Your task to perform on an android device: open app "TextNow: Call + Text Unlimited" (install if not already installed) and enter user name: "stoke@yahoo.com" and password: "prompted" Image 0: 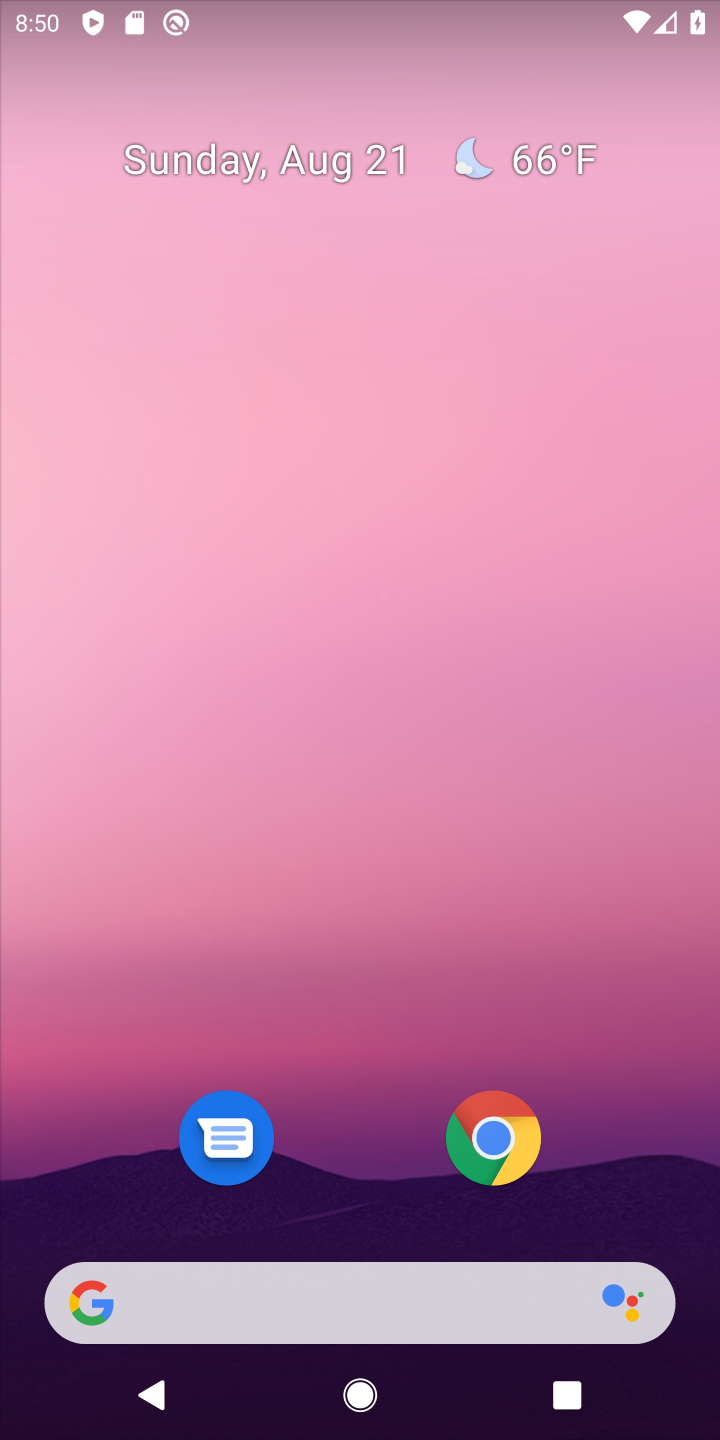
Step 0: press home button
Your task to perform on an android device: open app "TextNow: Call + Text Unlimited" (install if not already installed) and enter user name: "stoke@yahoo.com" and password: "prompted" Image 1: 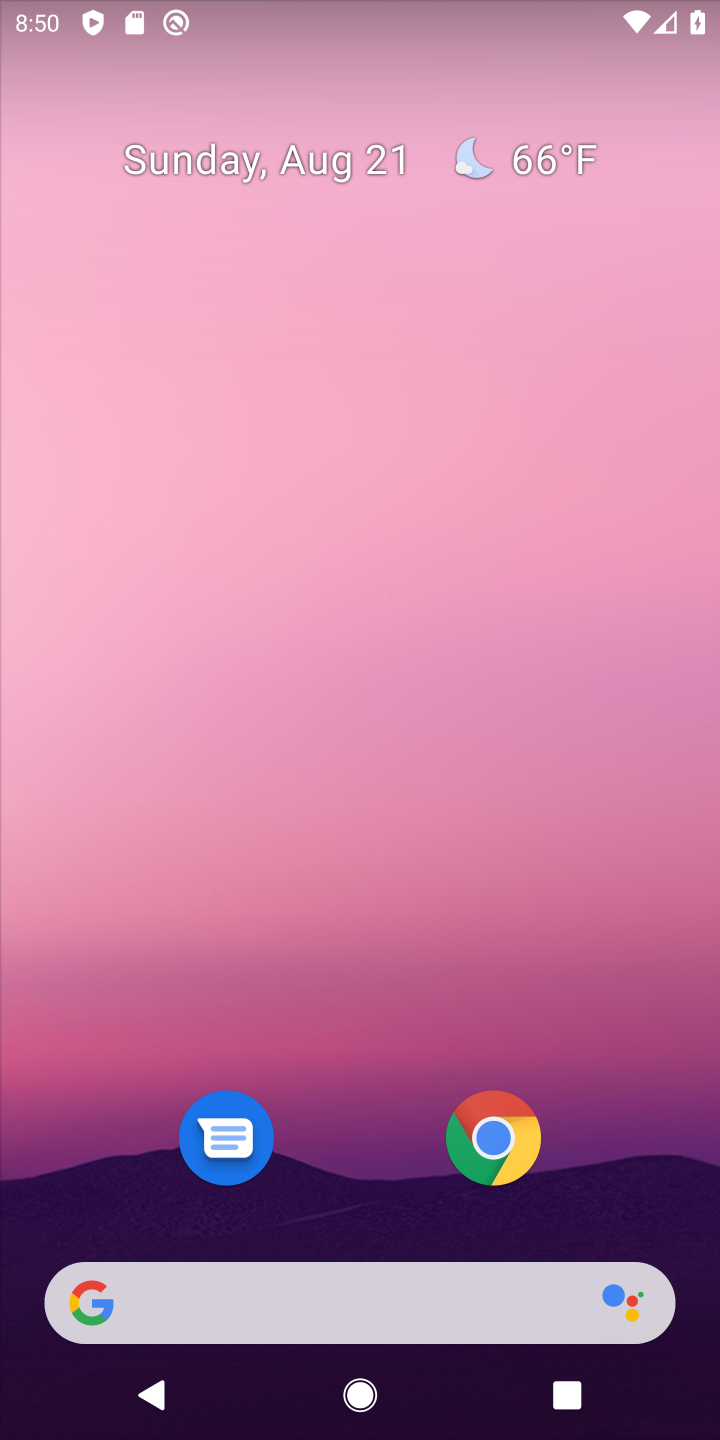
Step 1: drag from (633, 1191) to (631, 339)
Your task to perform on an android device: open app "TextNow: Call + Text Unlimited" (install if not already installed) and enter user name: "stoke@yahoo.com" and password: "prompted" Image 2: 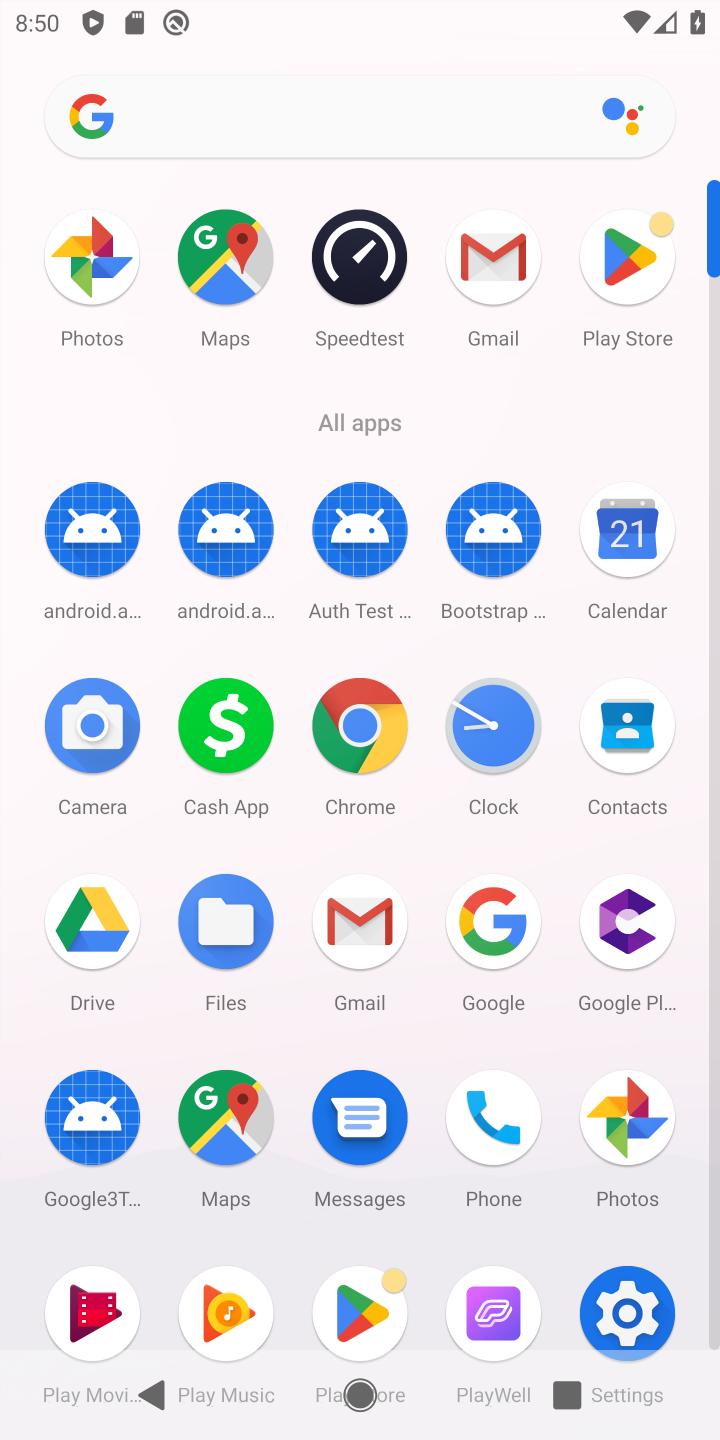
Step 2: click (625, 257)
Your task to perform on an android device: open app "TextNow: Call + Text Unlimited" (install if not already installed) and enter user name: "stoke@yahoo.com" and password: "prompted" Image 3: 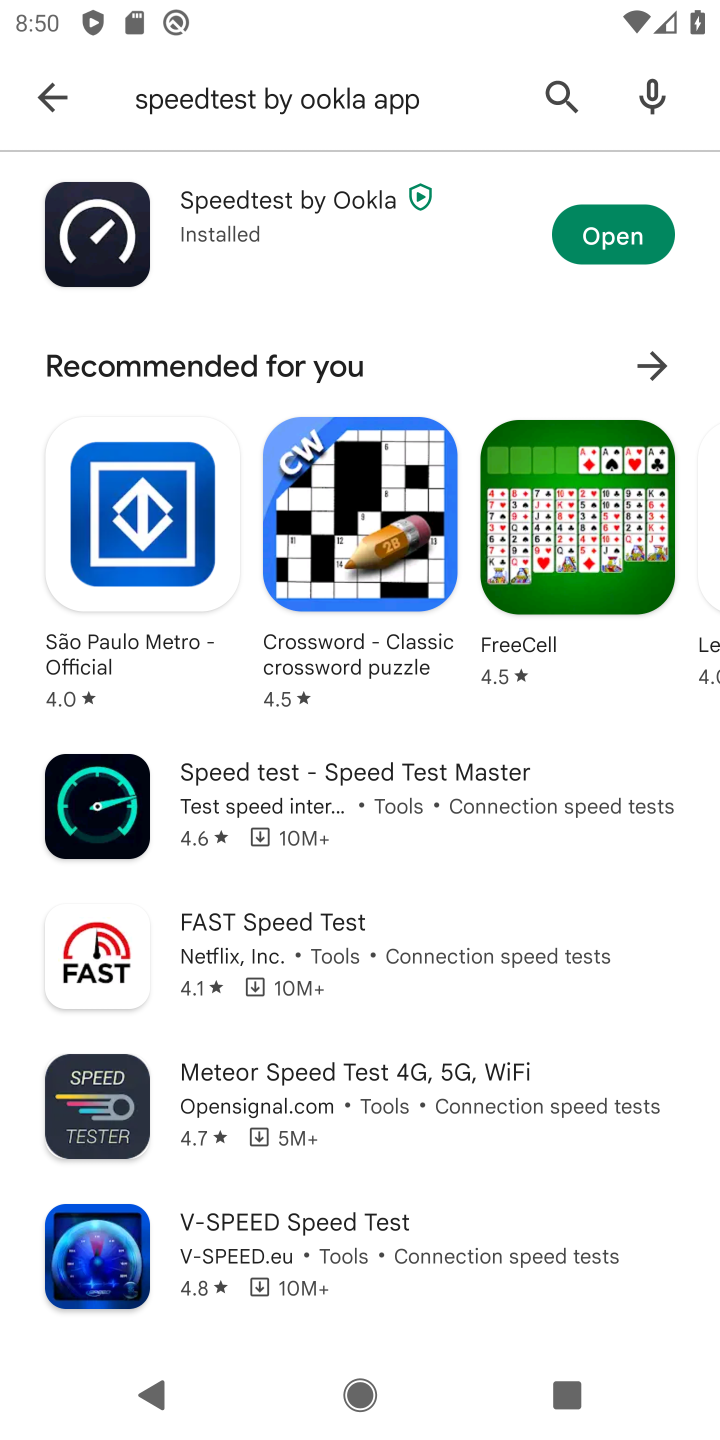
Step 3: press back button
Your task to perform on an android device: open app "TextNow: Call + Text Unlimited" (install if not already installed) and enter user name: "stoke@yahoo.com" and password: "prompted" Image 4: 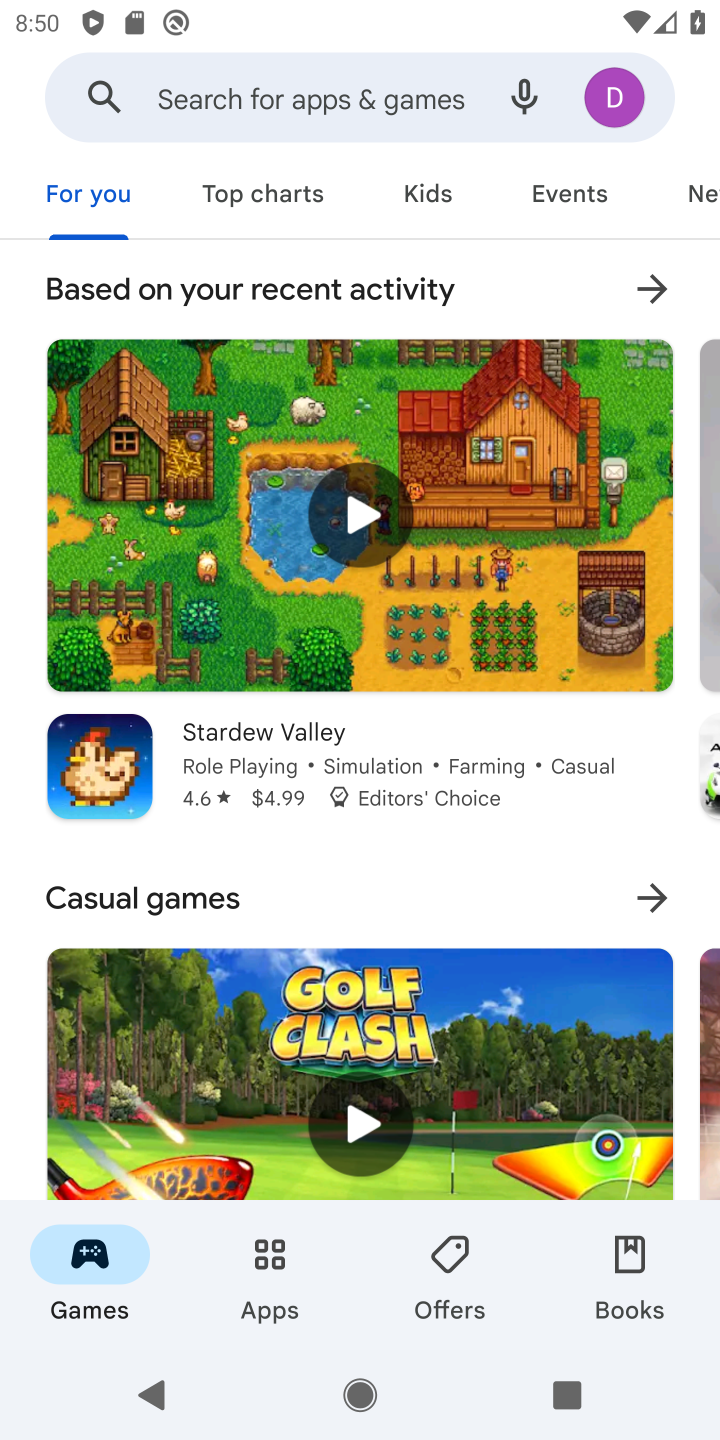
Step 4: click (282, 90)
Your task to perform on an android device: open app "TextNow: Call + Text Unlimited" (install if not already installed) and enter user name: "stoke@yahoo.com" and password: "prompted" Image 5: 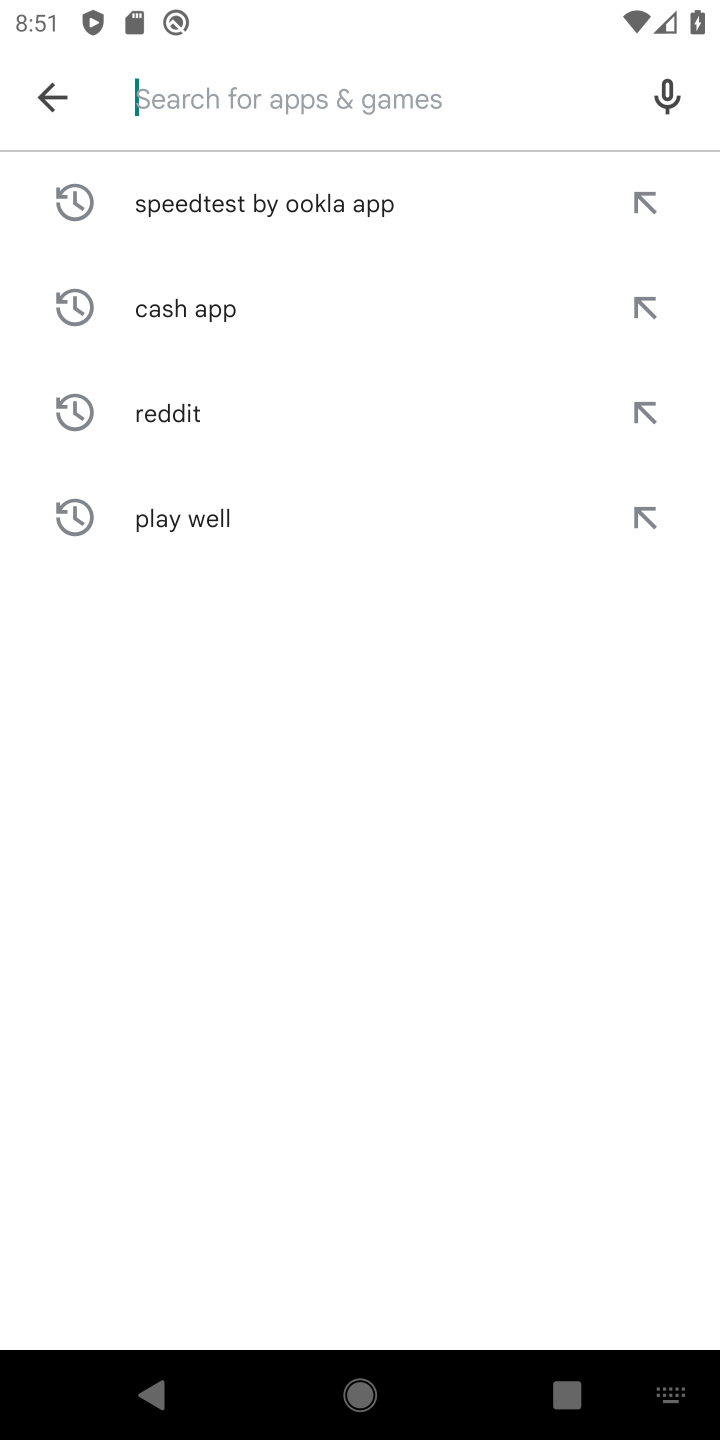
Step 5: press enter
Your task to perform on an android device: open app "TextNow: Call + Text Unlimited" (install if not already installed) and enter user name: "stoke@yahoo.com" and password: "prompted" Image 6: 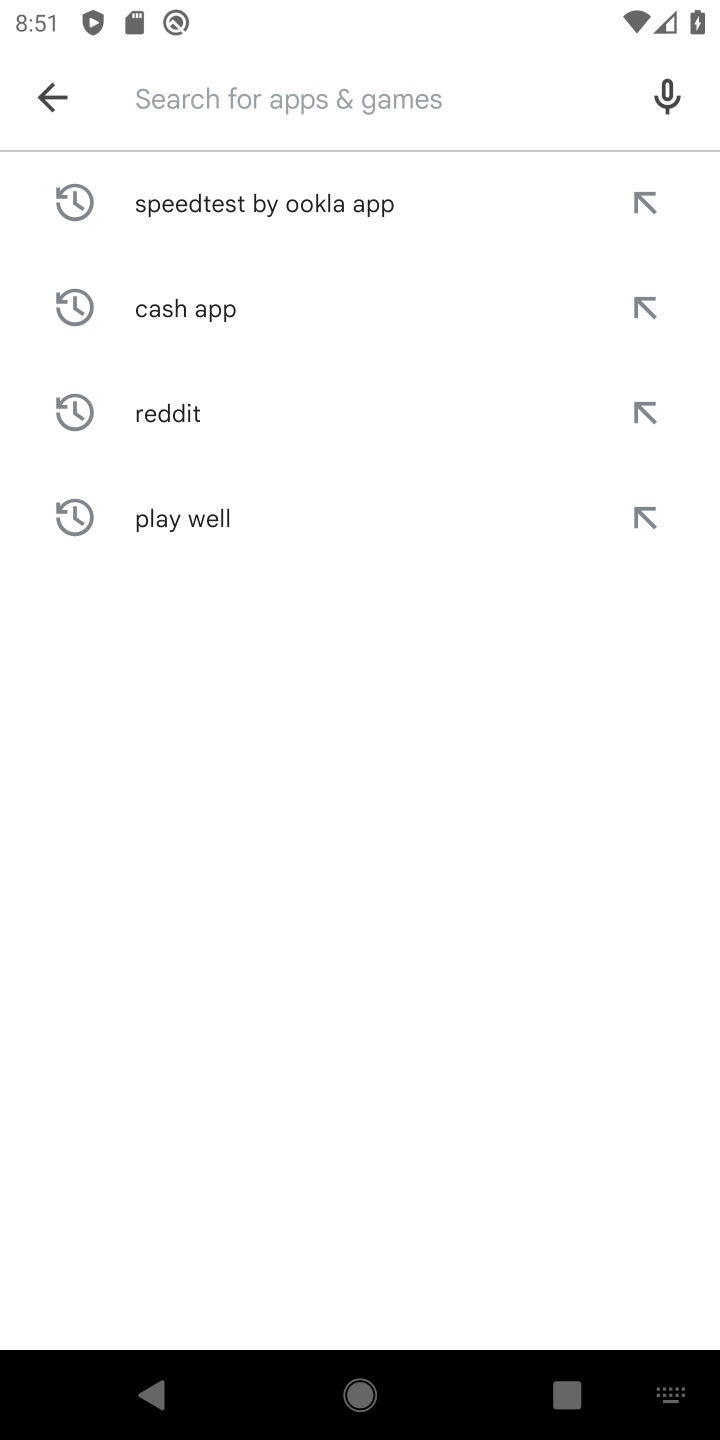
Step 6: type "TextNow: Call + Text Unlimited"
Your task to perform on an android device: open app "TextNow: Call + Text Unlimited" (install if not already installed) and enter user name: "stoke@yahoo.com" and password: "prompted" Image 7: 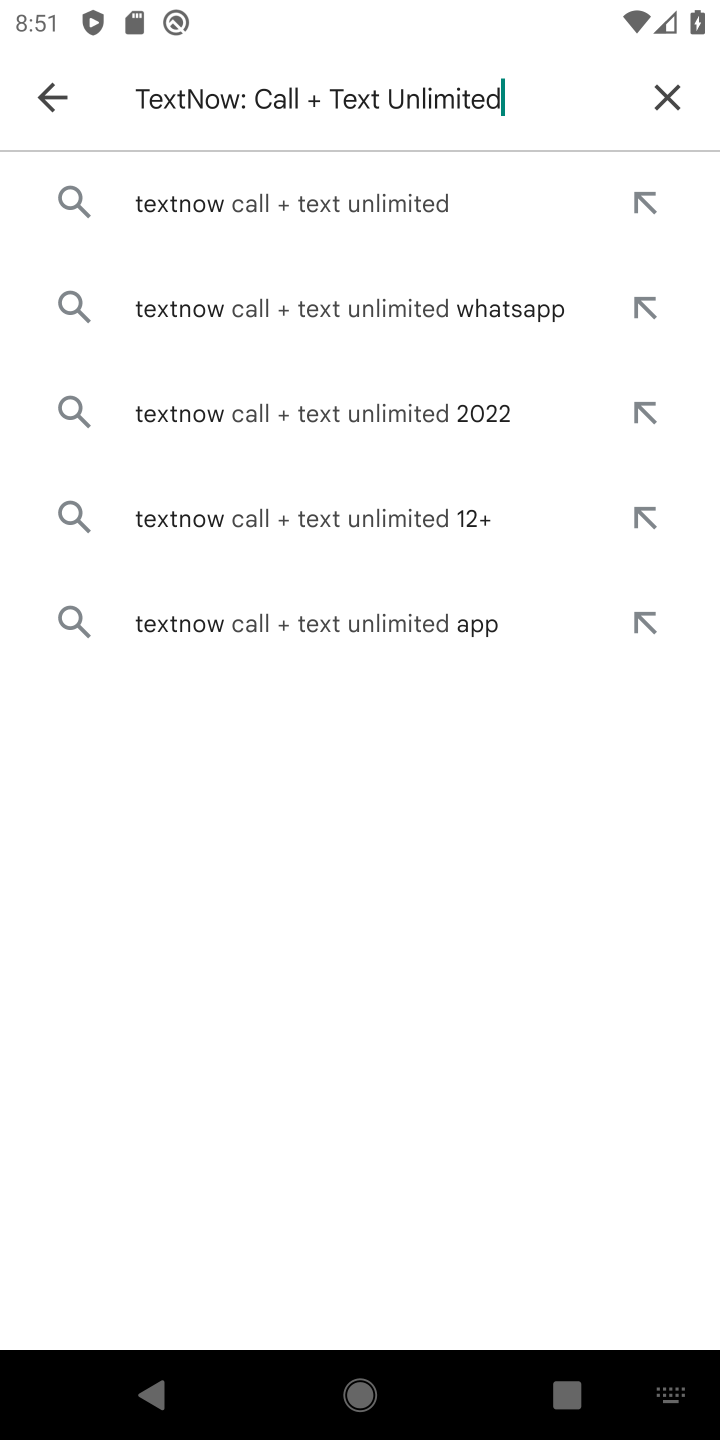
Step 7: click (436, 207)
Your task to perform on an android device: open app "TextNow: Call + Text Unlimited" (install if not already installed) and enter user name: "stoke@yahoo.com" and password: "prompted" Image 8: 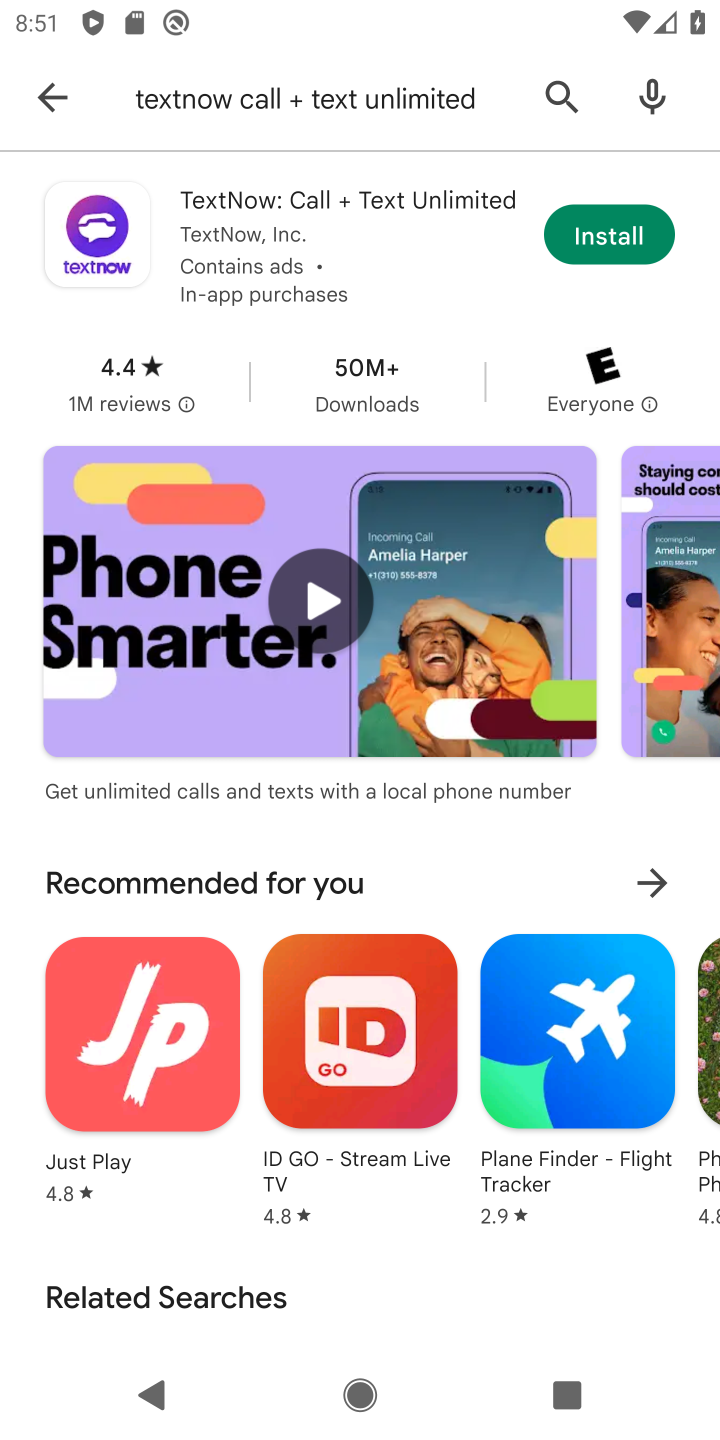
Step 8: click (607, 243)
Your task to perform on an android device: open app "TextNow: Call + Text Unlimited" (install if not already installed) and enter user name: "stoke@yahoo.com" and password: "prompted" Image 9: 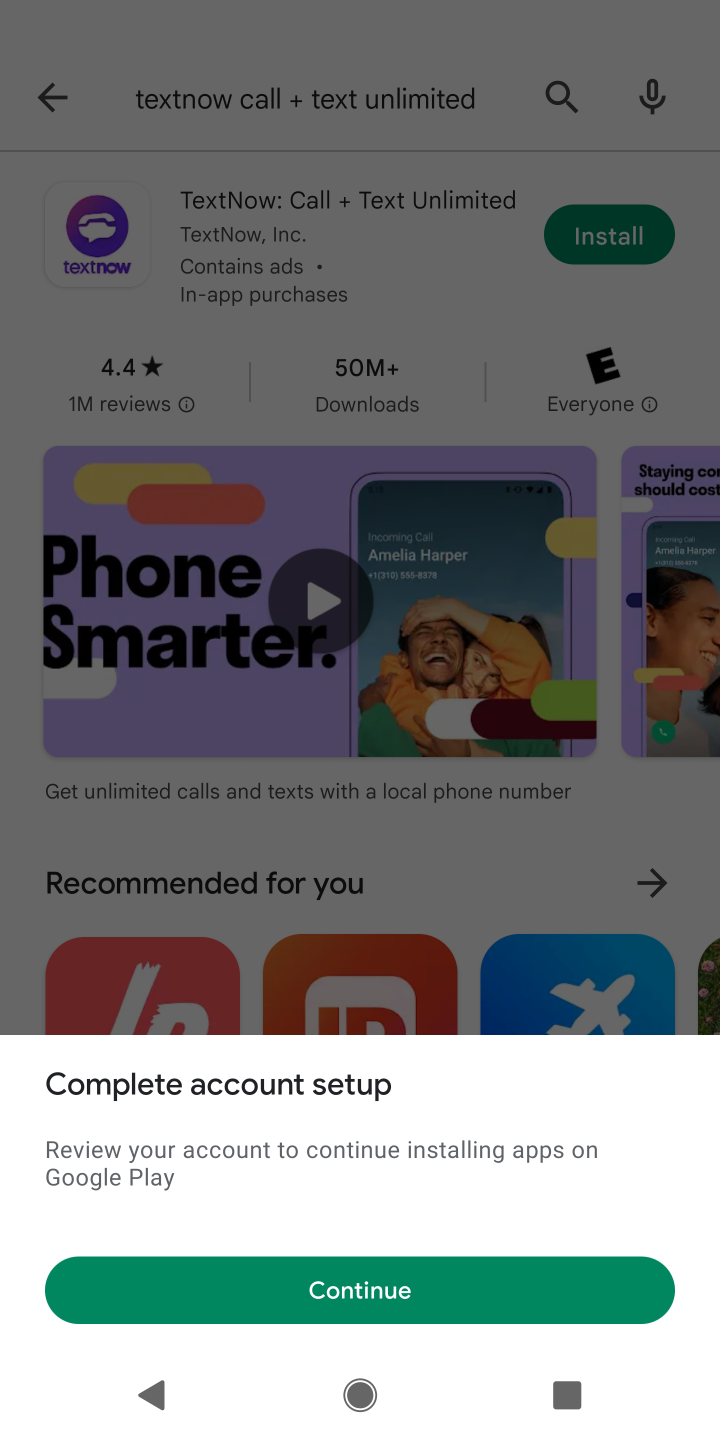
Step 9: click (427, 1266)
Your task to perform on an android device: open app "TextNow: Call + Text Unlimited" (install if not already installed) and enter user name: "stoke@yahoo.com" and password: "prompted" Image 10: 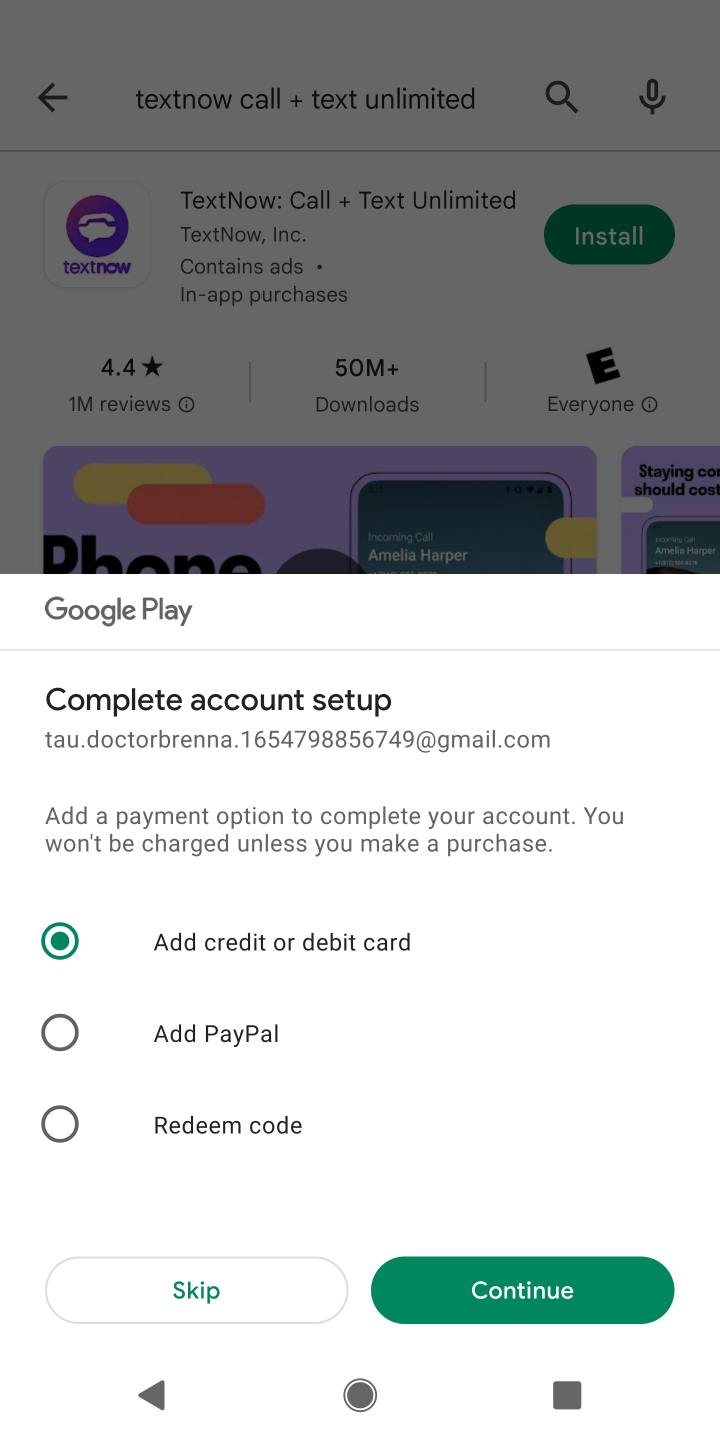
Step 10: click (184, 1288)
Your task to perform on an android device: open app "TextNow: Call + Text Unlimited" (install if not already installed) and enter user name: "stoke@yahoo.com" and password: "prompted" Image 11: 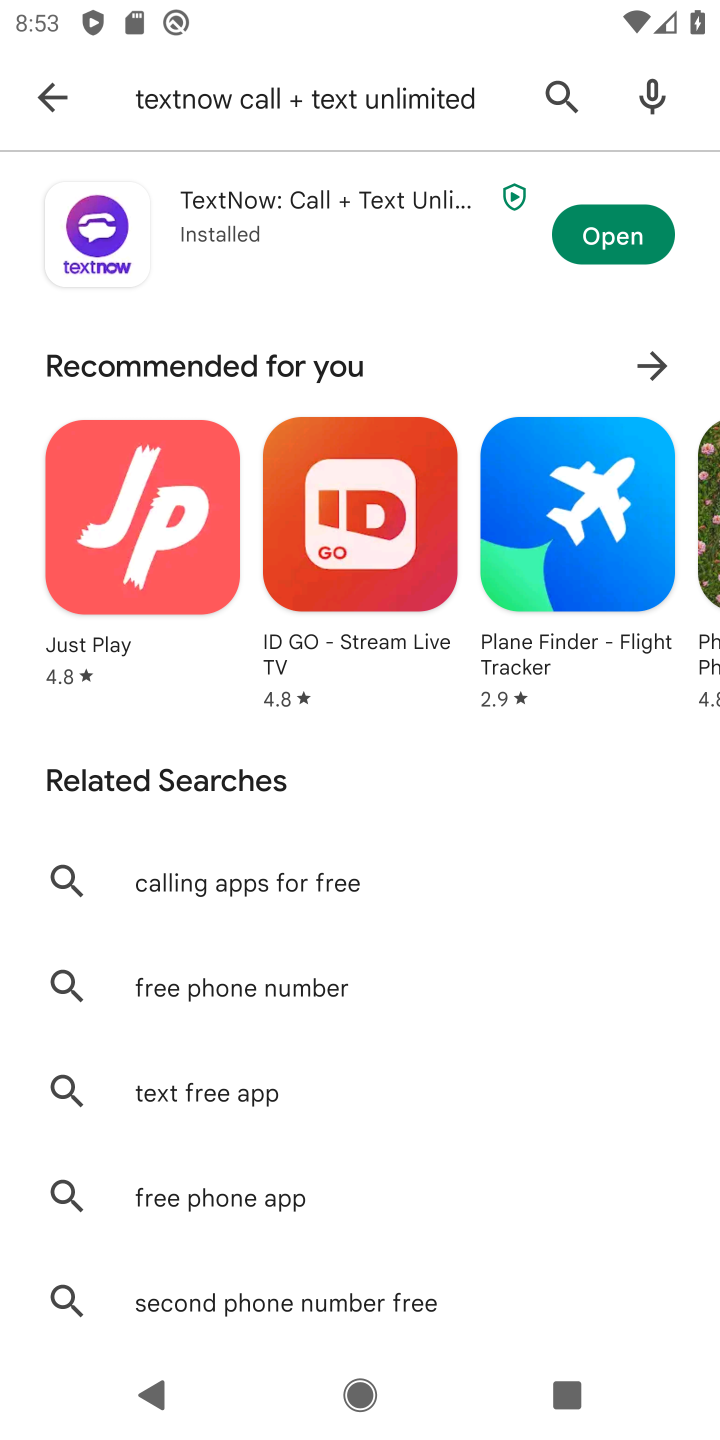
Step 11: click (620, 221)
Your task to perform on an android device: open app "TextNow: Call + Text Unlimited" (install if not already installed) and enter user name: "stoke@yahoo.com" and password: "prompted" Image 12: 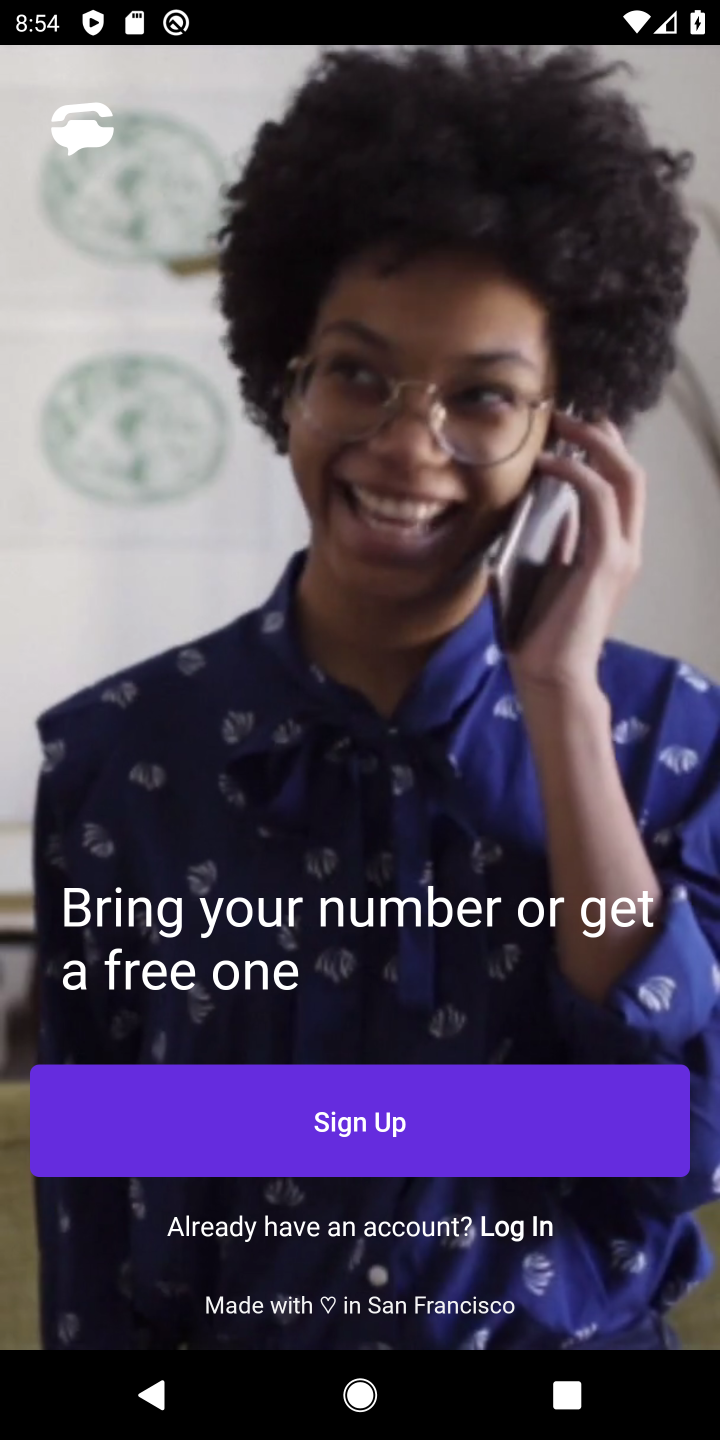
Step 12: click (538, 1231)
Your task to perform on an android device: open app "TextNow: Call + Text Unlimited" (install if not already installed) and enter user name: "stoke@yahoo.com" and password: "prompted" Image 13: 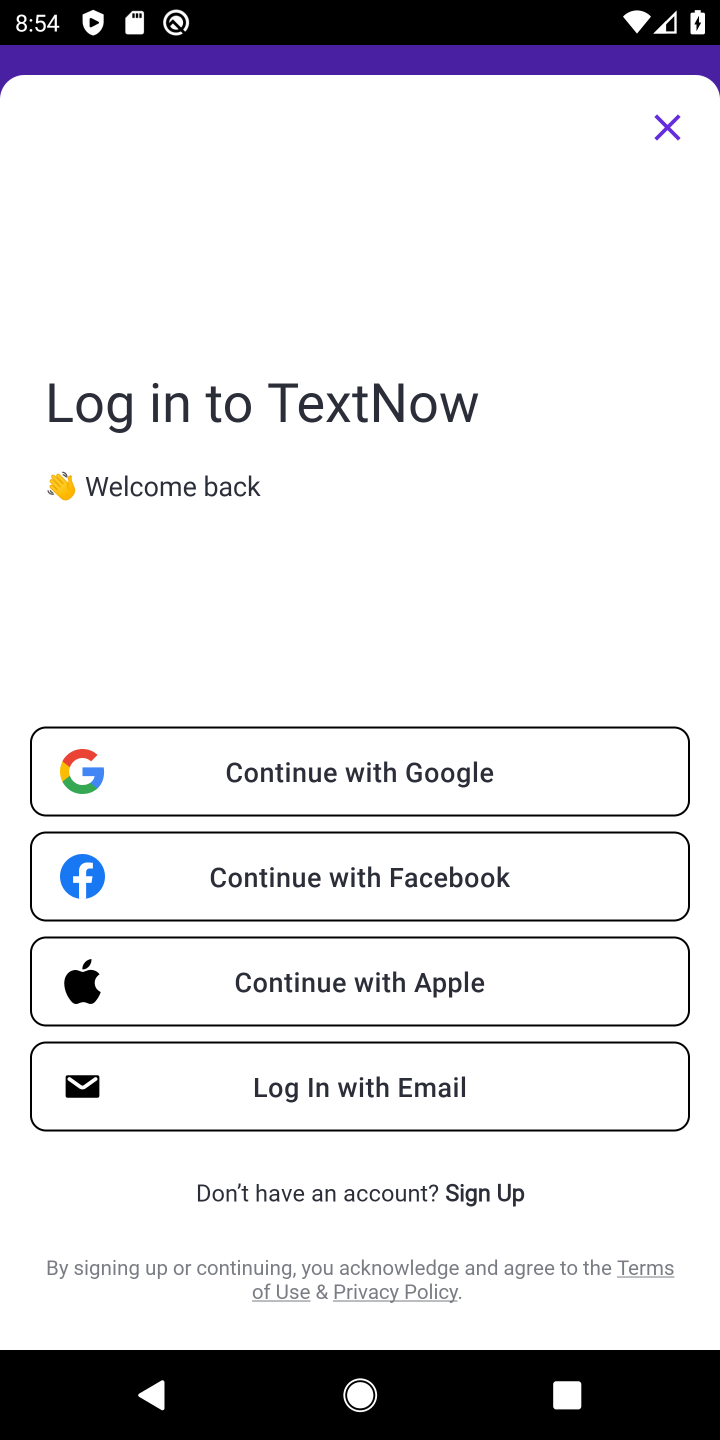
Step 13: click (462, 1082)
Your task to perform on an android device: open app "TextNow: Call + Text Unlimited" (install if not already installed) and enter user name: "stoke@yahoo.com" and password: "prompted" Image 14: 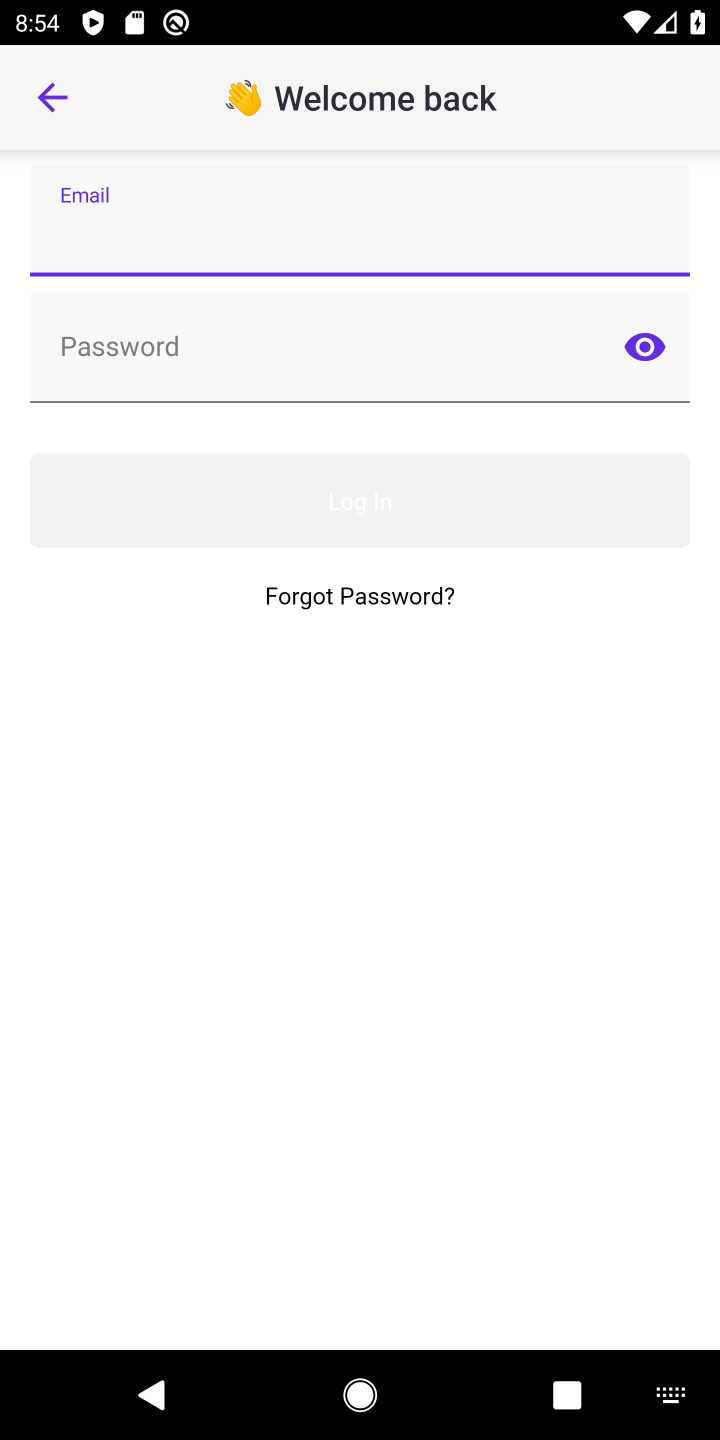
Step 14: type "stoke@yahoo.com"
Your task to perform on an android device: open app "TextNow: Call + Text Unlimited" (install if not already installed) and enter user name: "stoke@yahoo.com" and password: "prompted" Image 15: 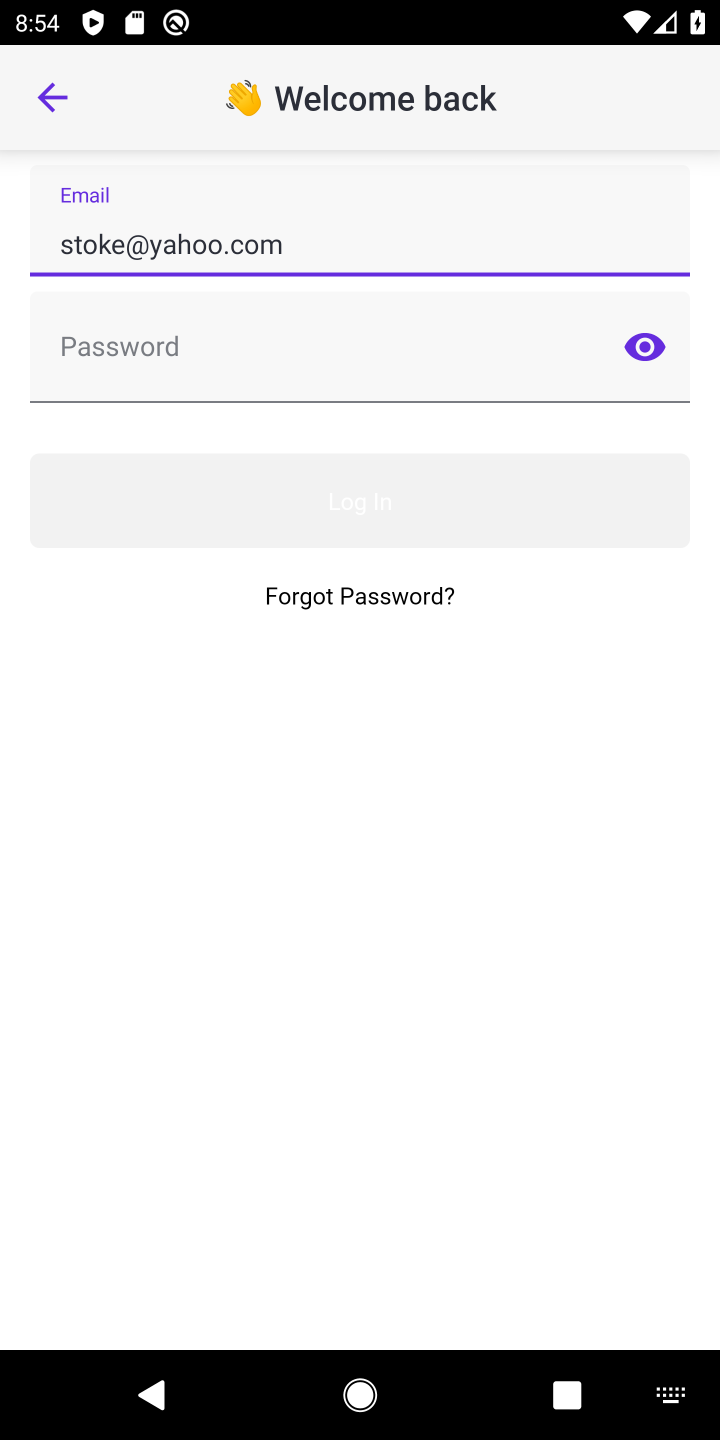
Step 15: click (295, 372)
Your task to perform on an android device: open app "TextNow: Call + Text Unlimited" (install if not already installed) and enter user name: "stoke@yahoo.com" and password: "prompted" Image 16: 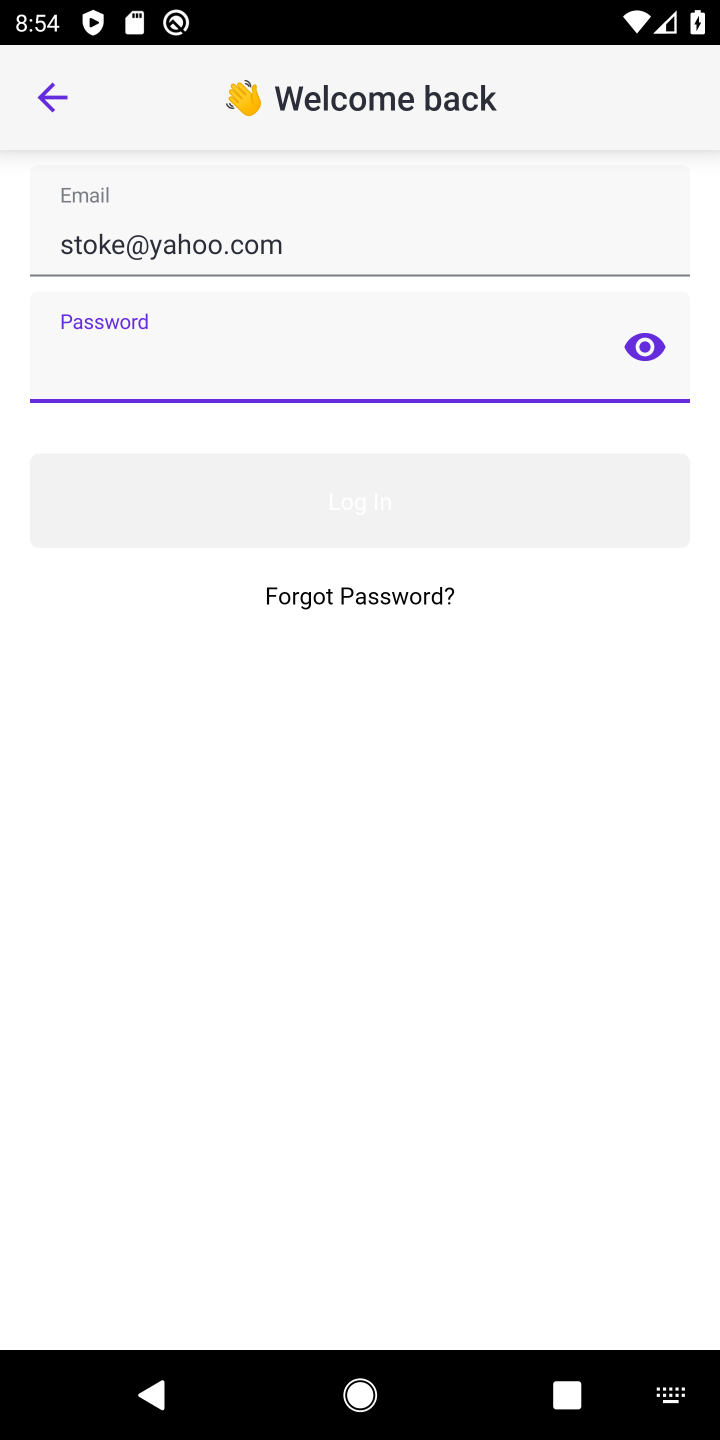
Step 16: type "prompted"
Your task to perform on an android device: open app "TextNow: Call + Text Unlimited" (install if not already installed) and enter user name: "stoke@yahoo.com" and password: "prompted" Image 17: 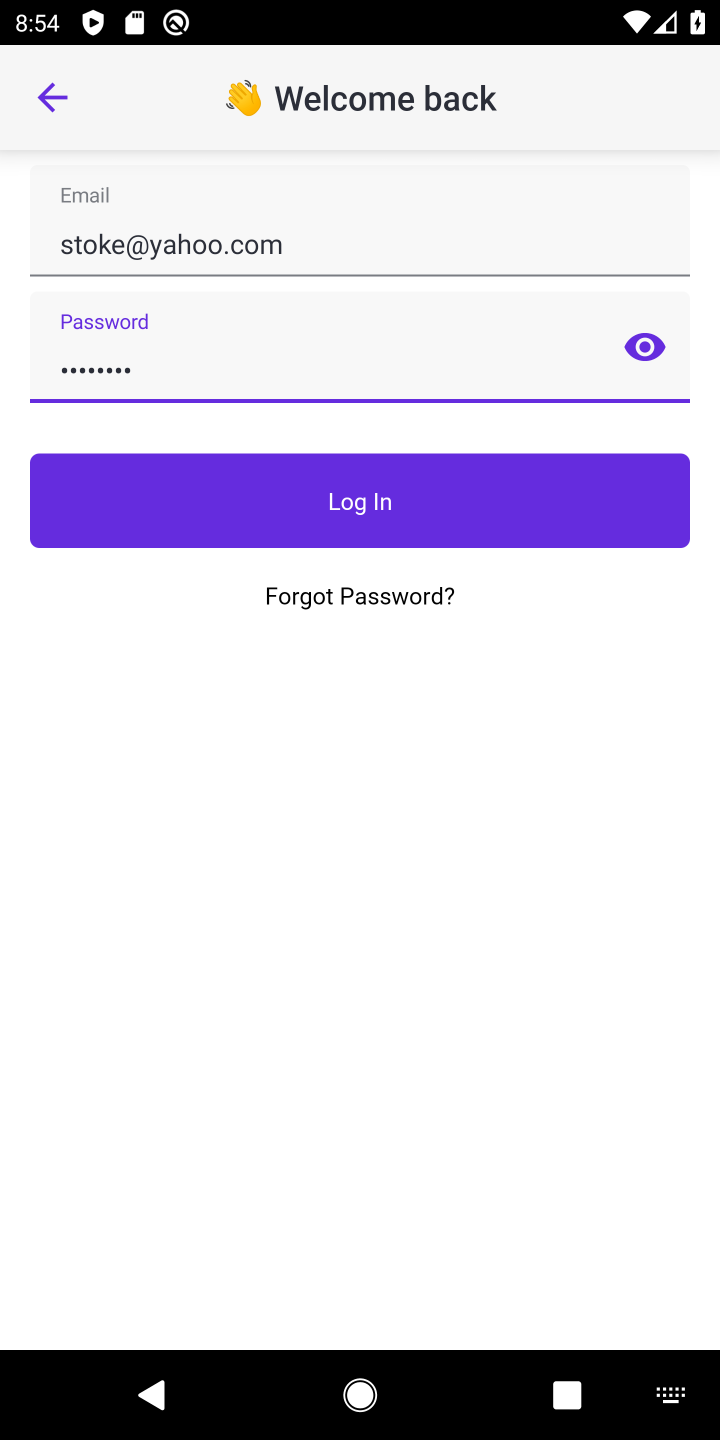
Step 17: task complete